Your task to perform on an android device: Show the shopping cart on walmart.com. Add "bose quietcomfort 35" to the cart on walmart.com Image 0: 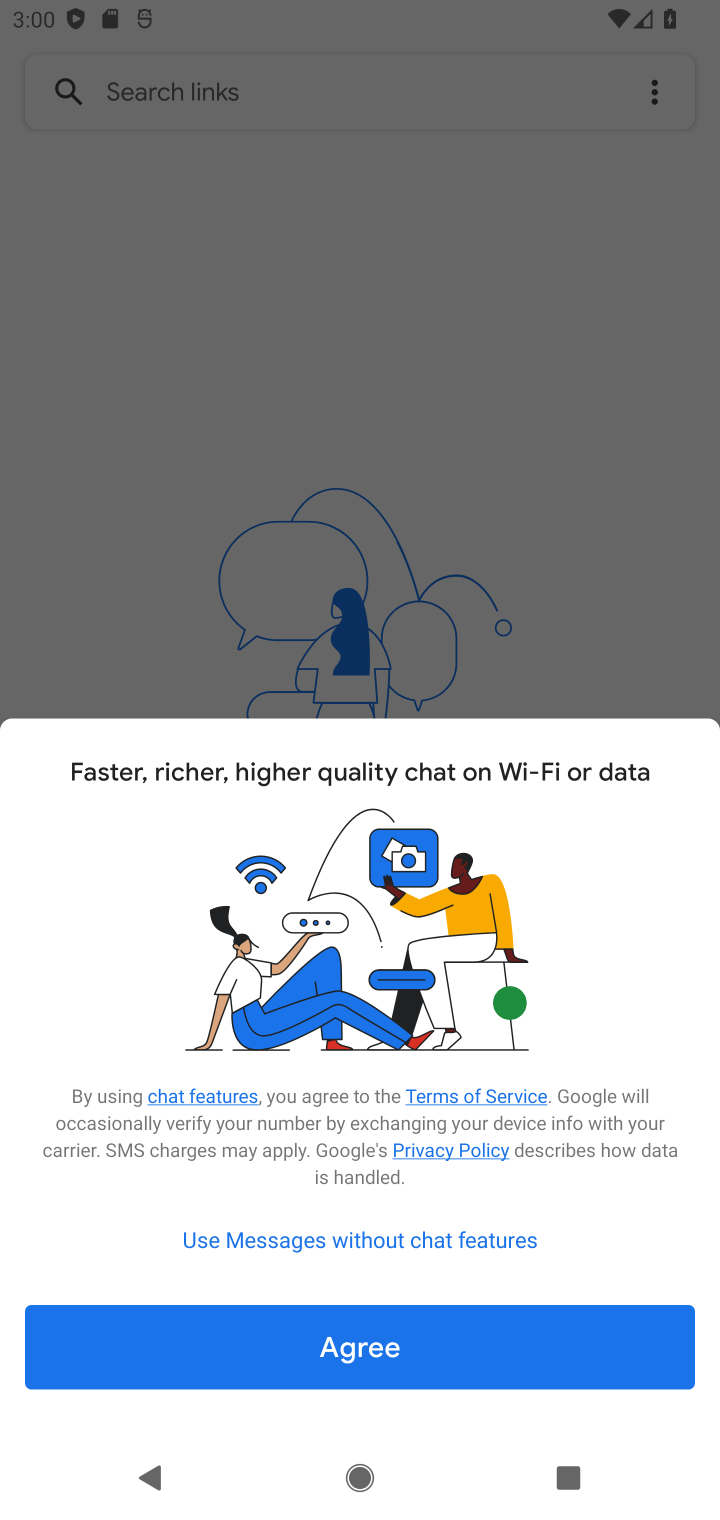
Step 0: press home button
Your task to perform on an android device: Show the shopping cart on walmart.com. Add "bose quietcomfort 35" to the cart on walmart.com Image 1: 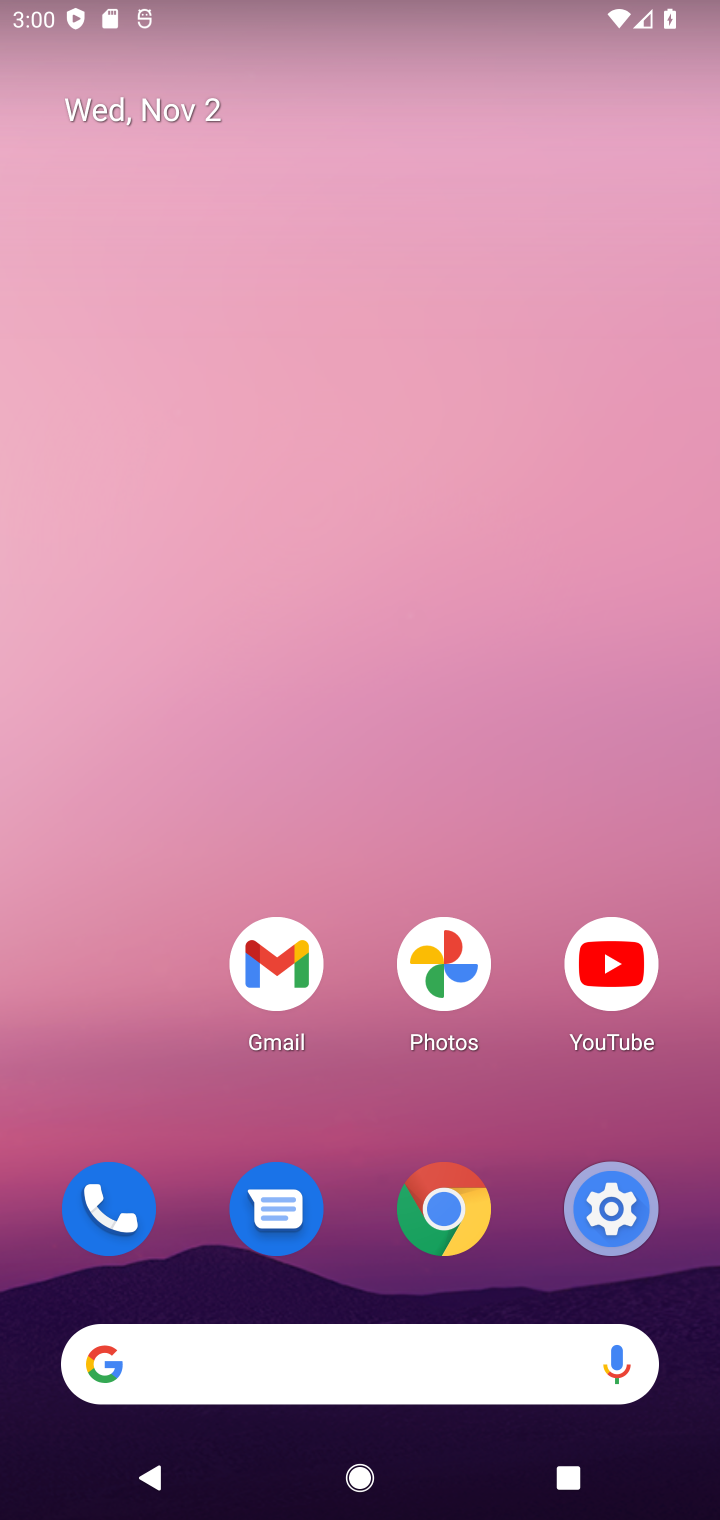
Step 1: click (95, 1370)
Your task to perform on an android device: Show the shopping cart on walmart.com. Add "bose quietcomfort 35" to the cart on walmart.com Image 2: 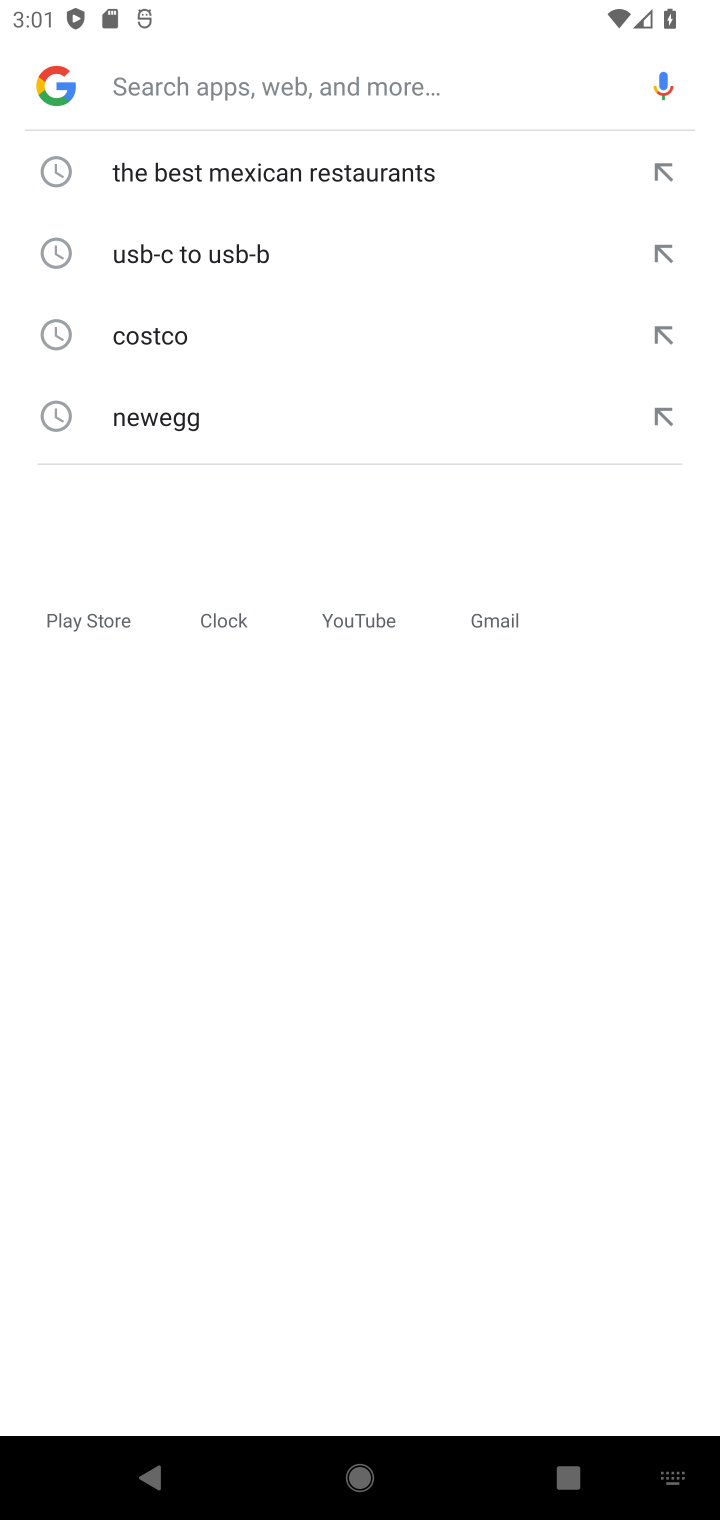
Step 2: type "walmart.com"
Your task to perform on an android device: Show the shopping cart on walmart.com. Add "bose quietcomfort 35" to the cart on walmart.com Image 3: 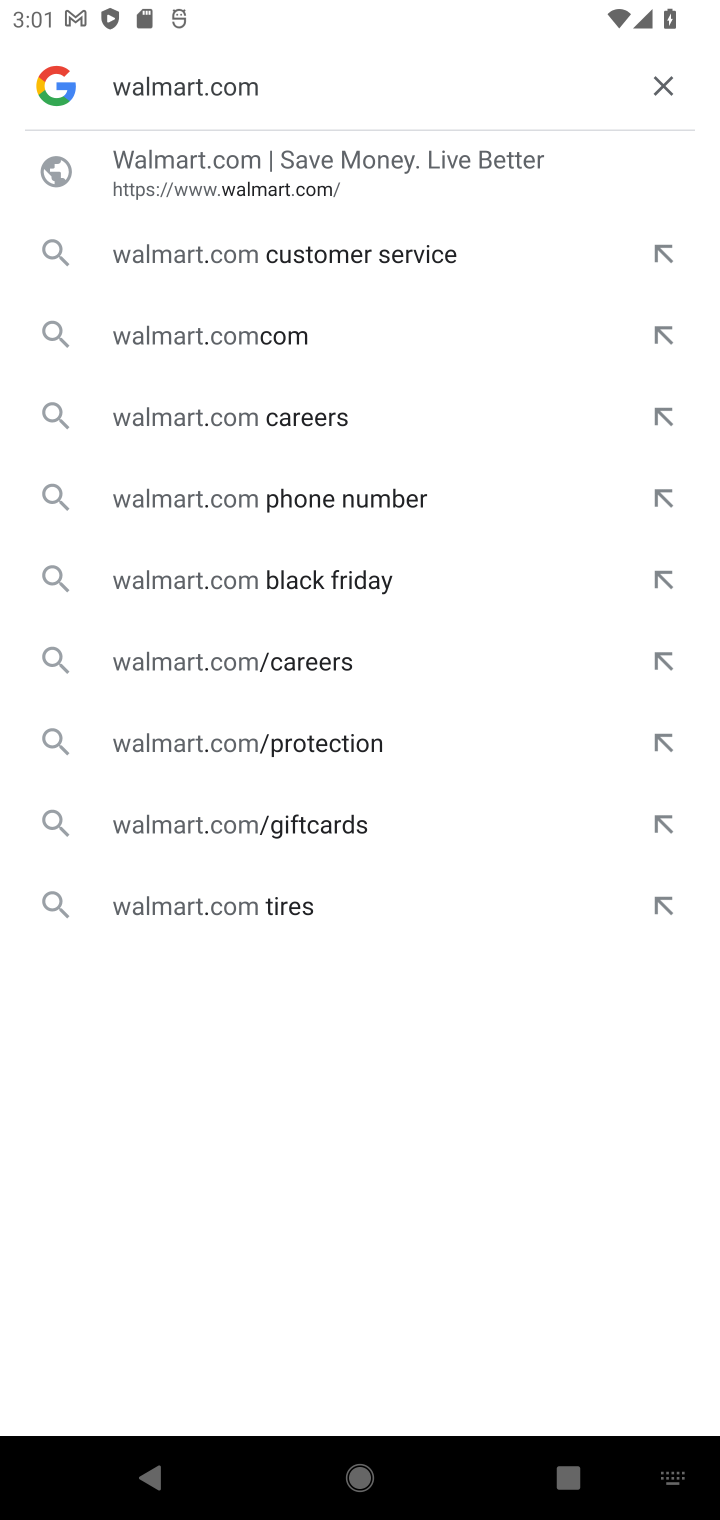
Step 3: click (290, 189)
Your task to perform on an android device: Show the shopping cart on walmart.com. Add "bose quietcomfort 35" to the cart on walmart.com Image 4: 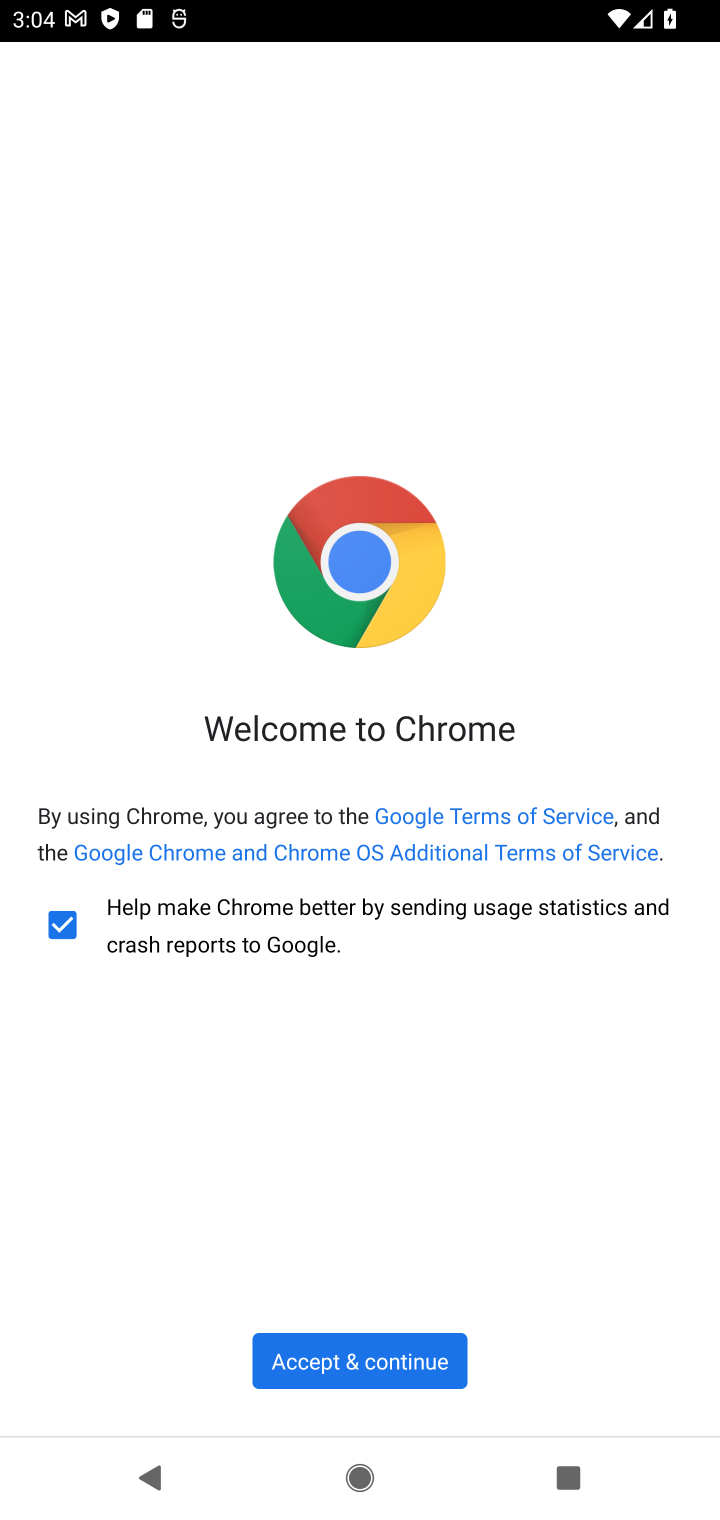
Step 4: click (296, 1364)
Your task to perform on an android device: Show the shopping cart on walmart.com. Add "bose quietcomfort 35" to the cart on walmart.com Image 5: 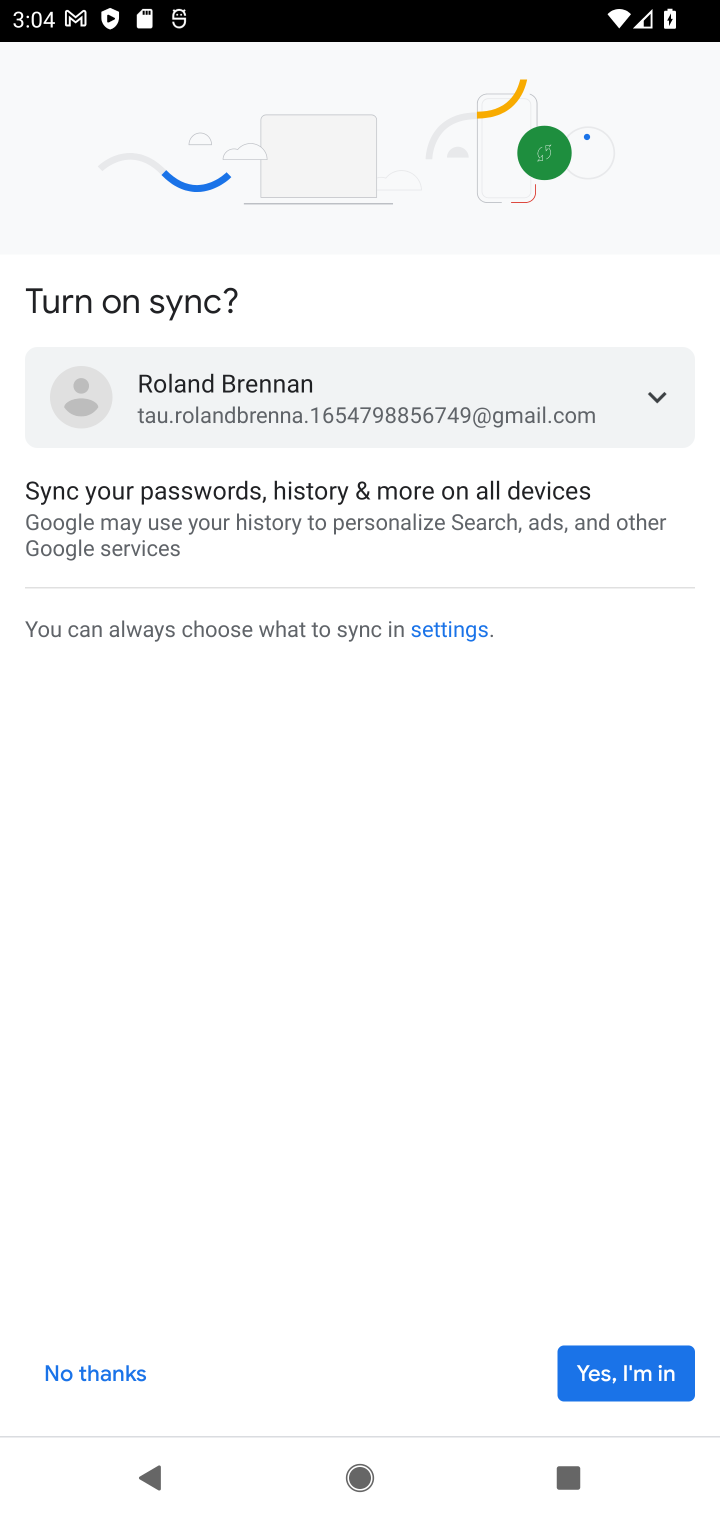
Step 5: click (626, 1362)
Your task to perform on an android device: Show the shopping cart on walmart.com. Add "bose quietcomfort 35" to the cart on walmart.com Image 6: 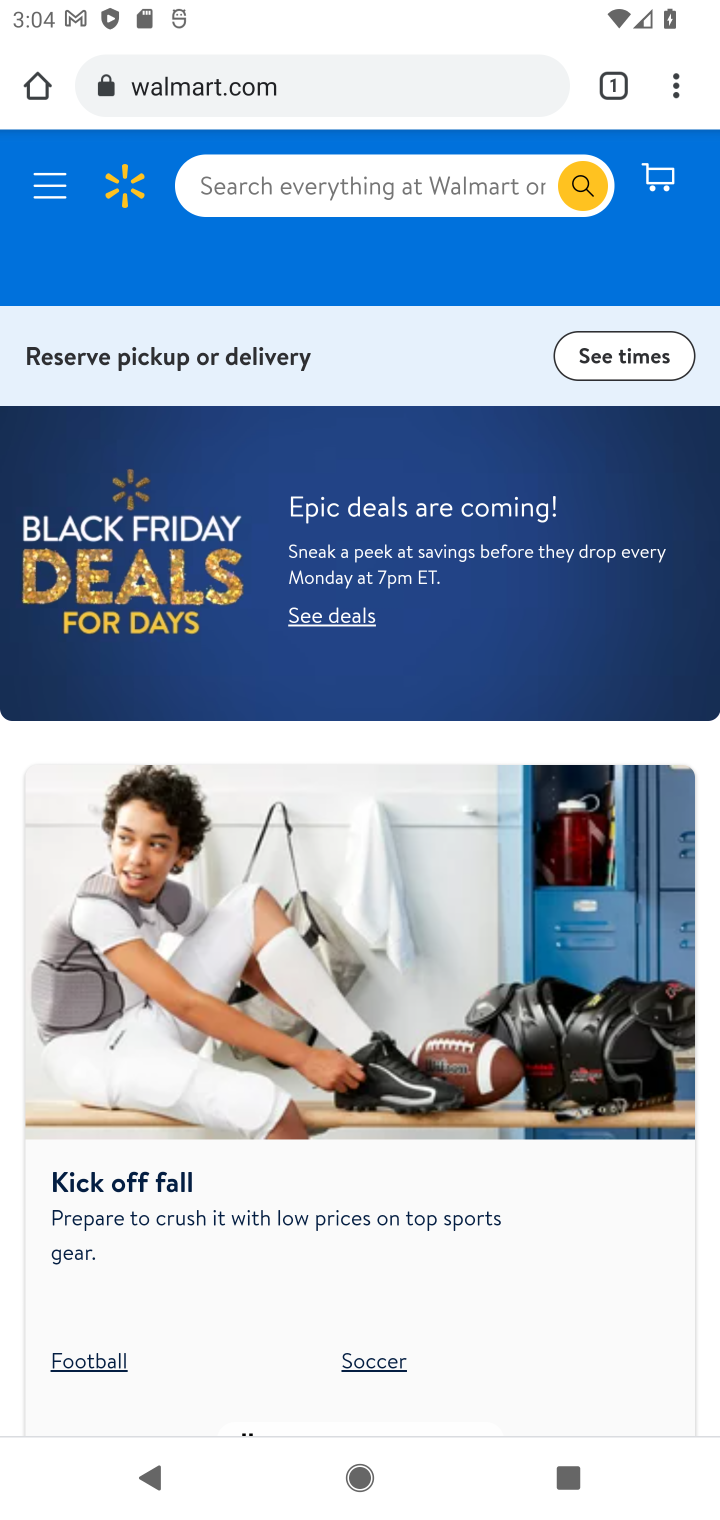
Step 6: click (387, 176)
Your task to perform on an android device: Show the shopping cart on walmart.com. Add "bose quietcomfort 35" to the cart on walmart.com Image 7: 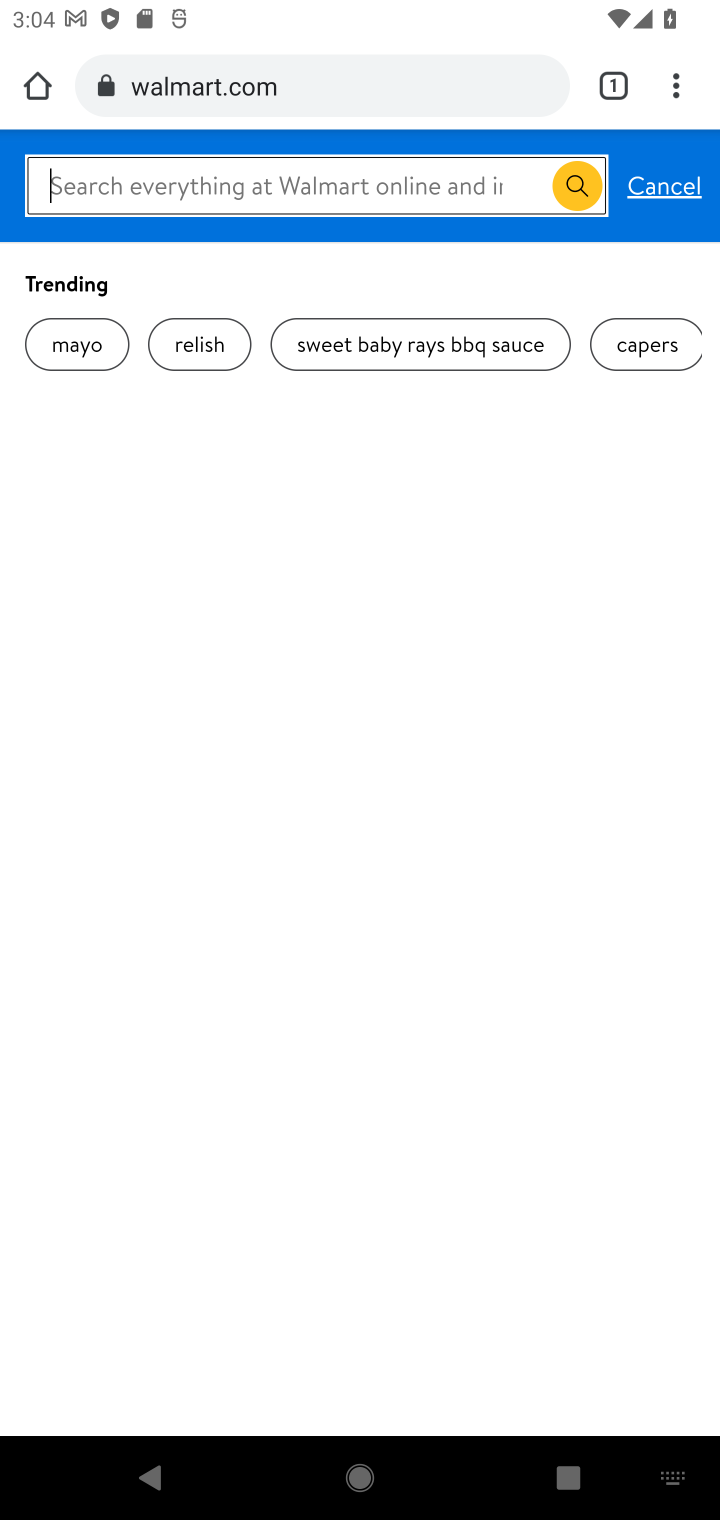
Step 7: type "bose quietcomfort 35"
Your task to perform on an android device: Show the shopping cart on walmart.com. Add "bose quietcomfort 35" to the cart on walmart.com Image 8: 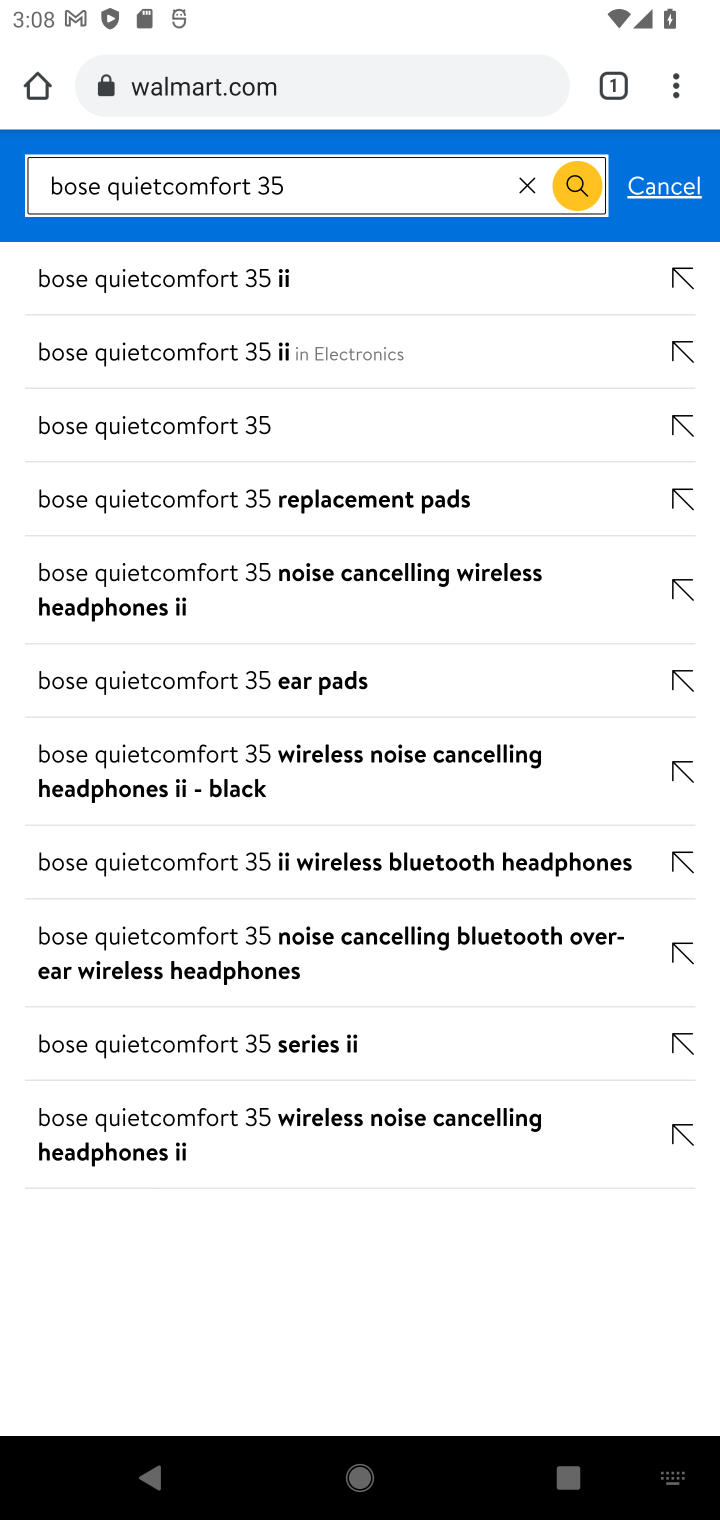
Step 8: click (305, 288)
Your task to perform on an android device: Show the shopping cart on walmart.com. Add "bose quietcomfort 35" to the cart on walmart.com Image 9: 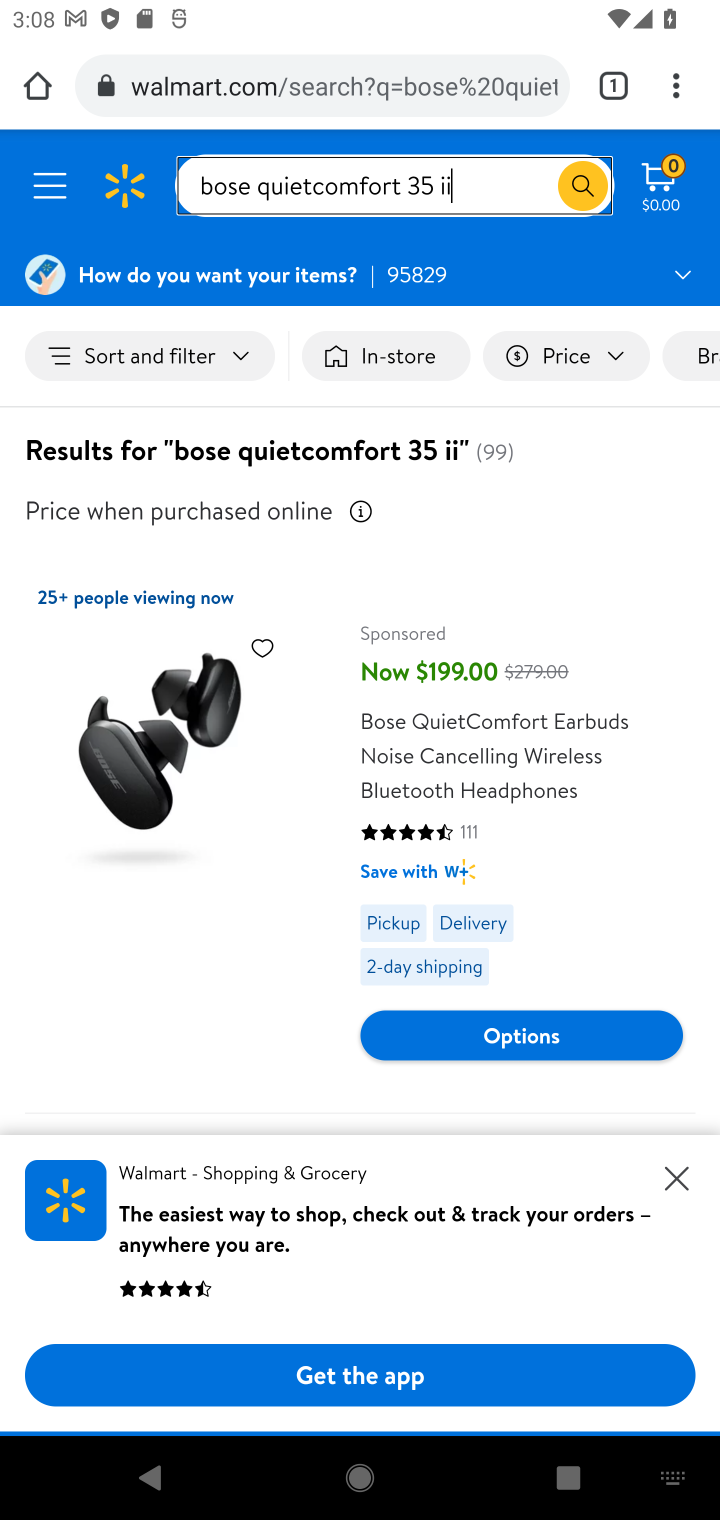
Step 9: click (678, 1183)
Your task to perform on an android device: Show the shopping cart on walmart.com. Add "bose quietcomfort 35" to the cart on walmart.com Image 10: 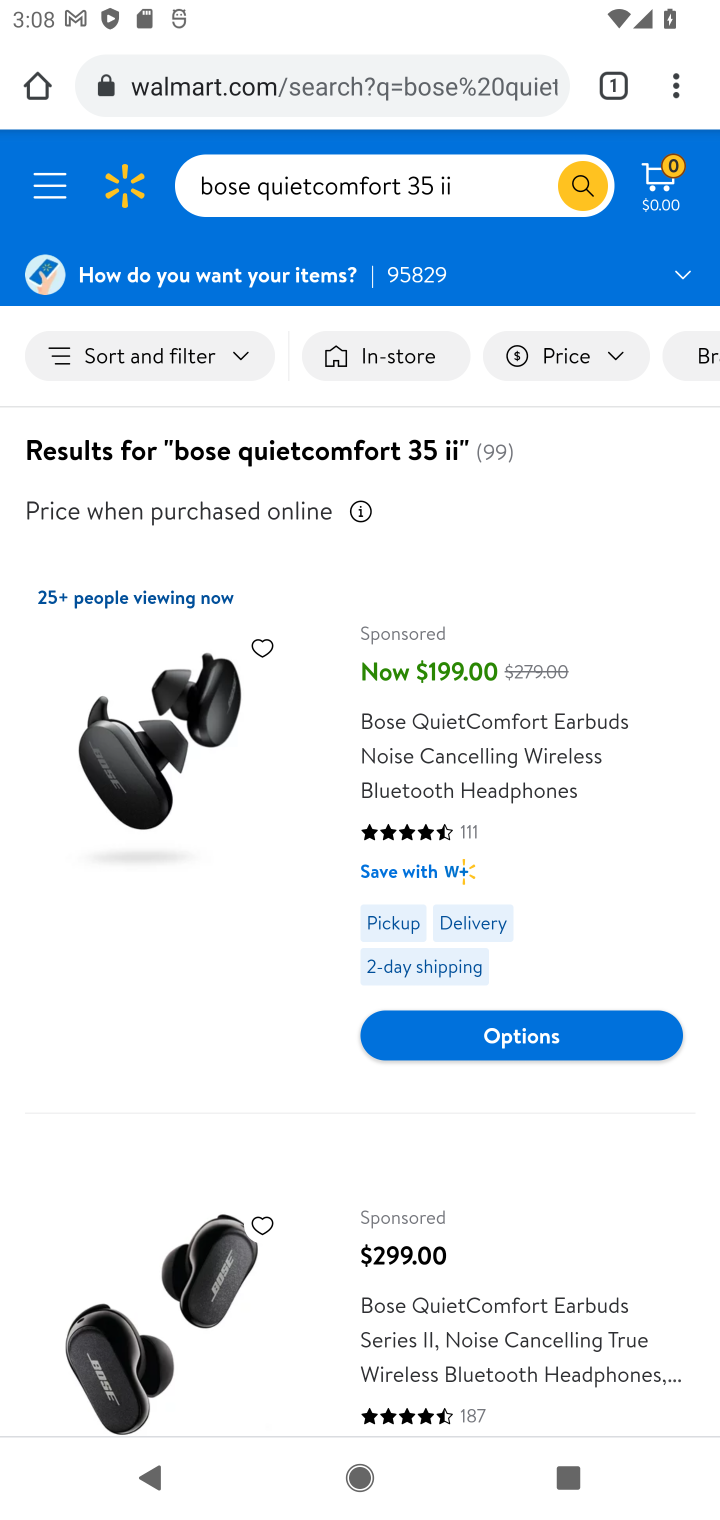
Step 10: task complete